Your task to perform on an android device: Go to notification settings Image 0: 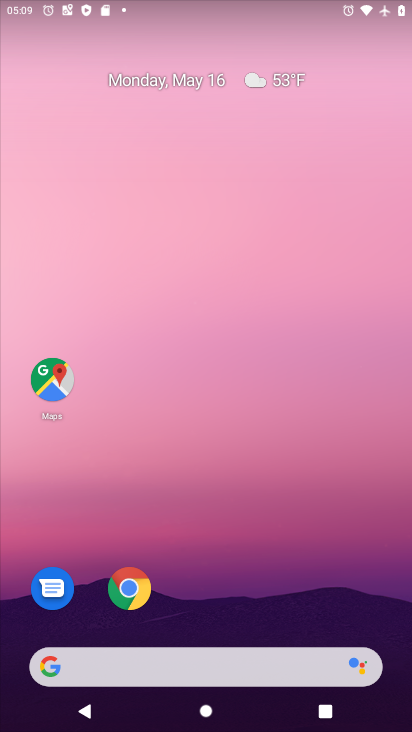
Step 0: drag from (214, 594) to (214, 31)
Your task to perform on an android device: Go to notification settings Image 1: 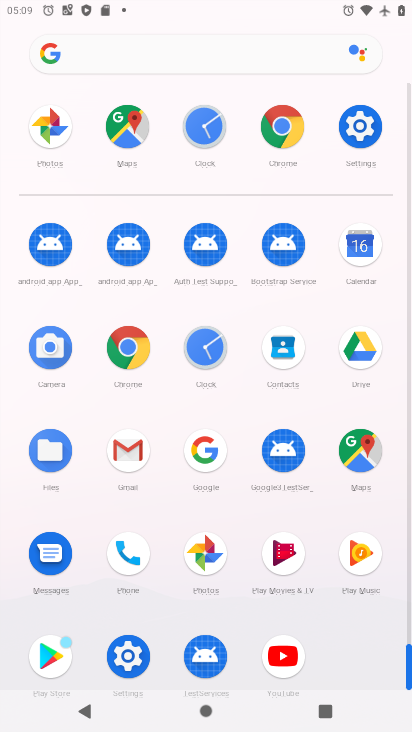
Step 1: drag from (3, 528) to (22, 155)
Your task to perform on an android device: Go to notification settings Image 2: 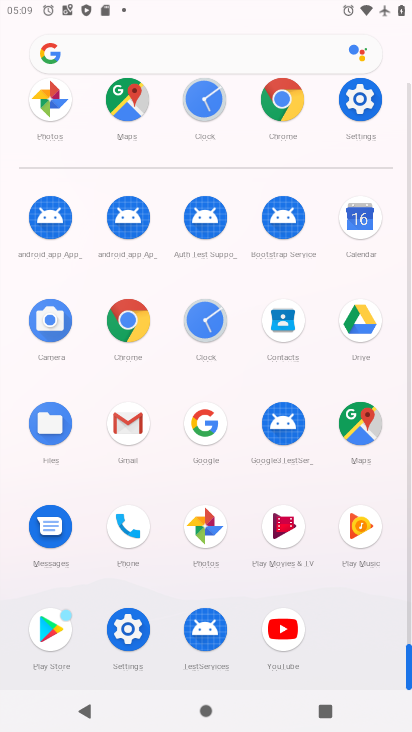
Step 2: click (125, 627)
Your task to perform on an android device: Go to notification settings Image 3: 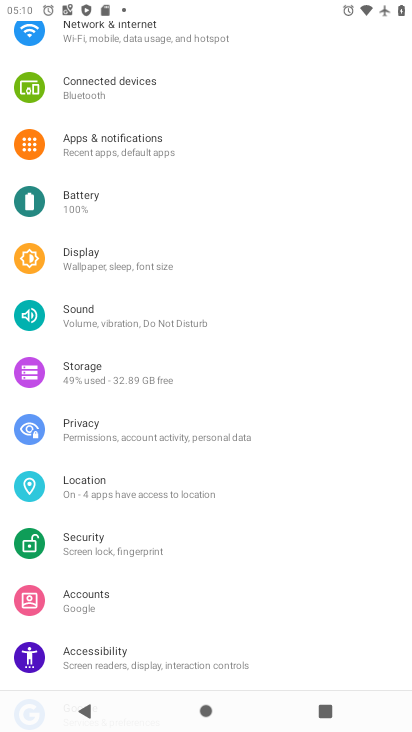
Step 3: drag from (215, 131) to (145, 498)
Your task to perform on an android device: Go to notification settings Image 4: 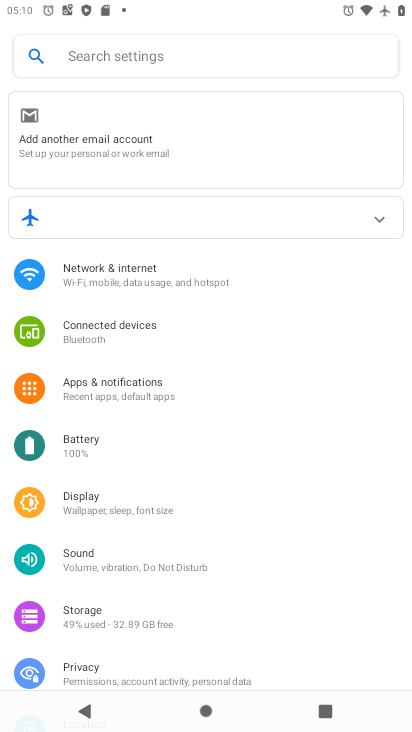
Step 4: click (145, 388)
Your task to perform on an android device: Go to notification settings Image 5: 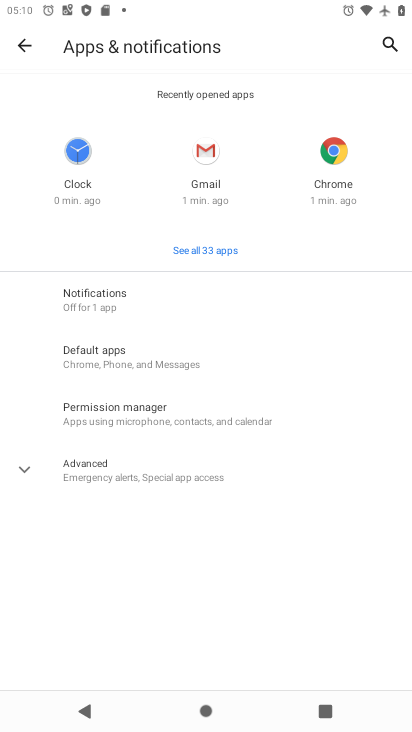
Step 5: click (48, 461)
Your task to perform on an android device: Go to notification settings Image 6: 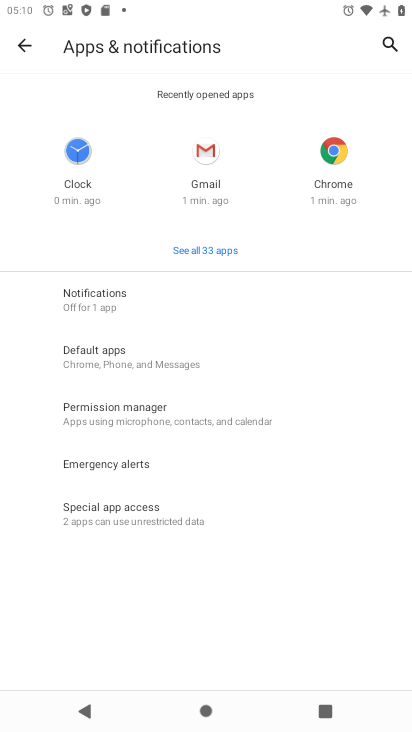
Step 6: click (146, 306)
Your task to perform on an android device: Go to notification settings Image 7: 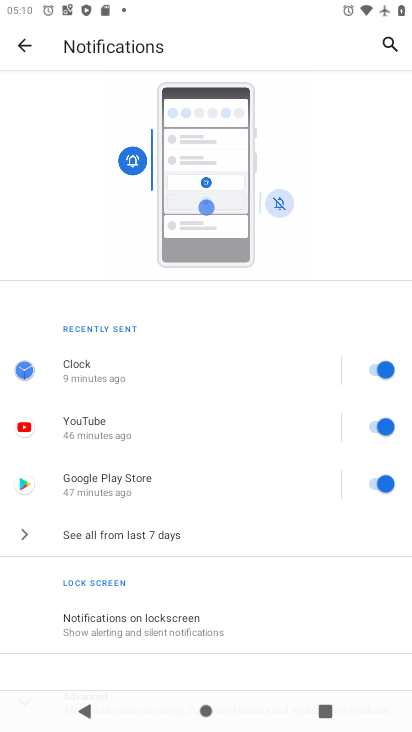
Step 7: task complete